Your task to perform on an android device: turn off sleep mode Image 0: 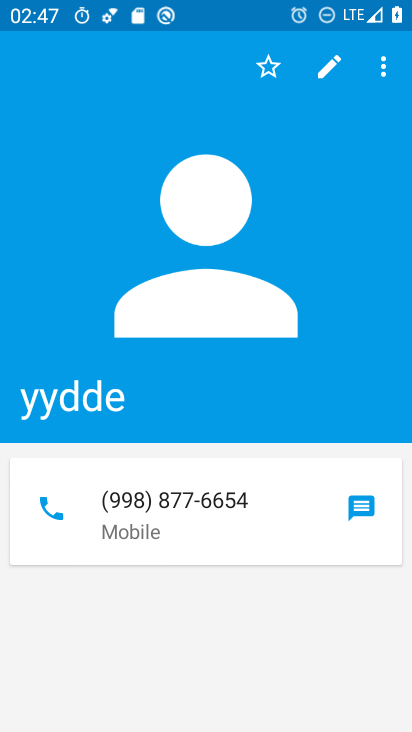
Step 0: press home button
Your task to perform on an android device: turn off sleep mode Image 1: 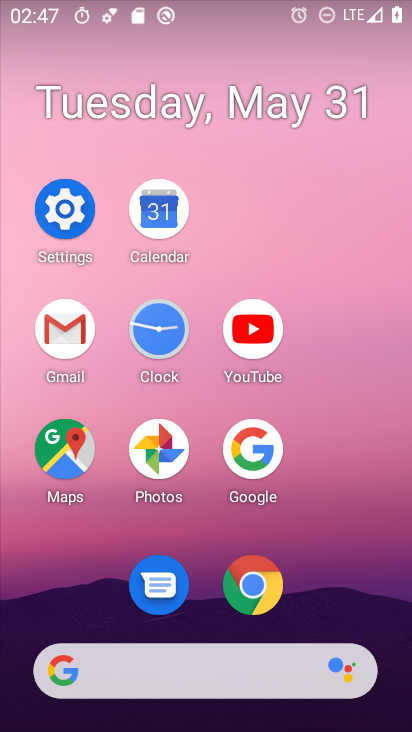
Step 1: click (70, 229)
Your task to perform on an android device: turn off sleep mode Image 2: 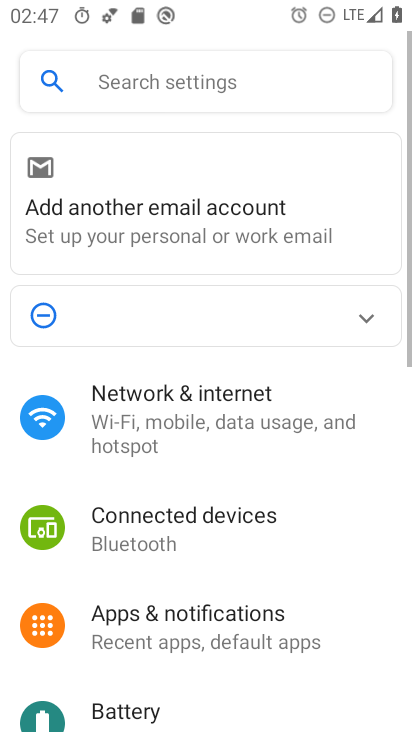
Step 2: drag from (254, 563) to (230, 198)
Your task to perform on an android device: turn off sleep mode Image 3: 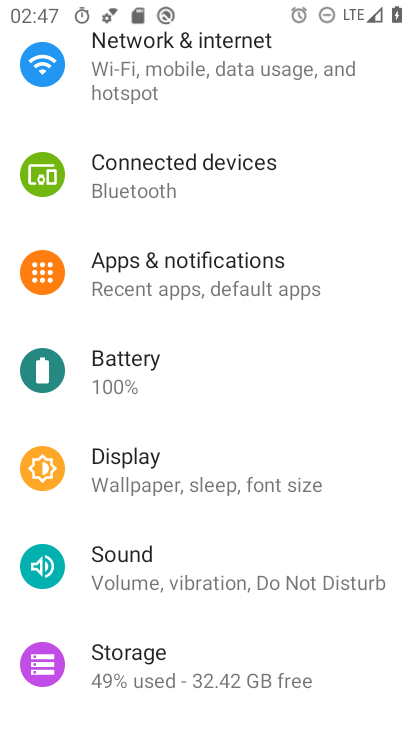
Step 3: click (186, 462)
Your task to perform on an android device: turn off sleep mode Image 4: 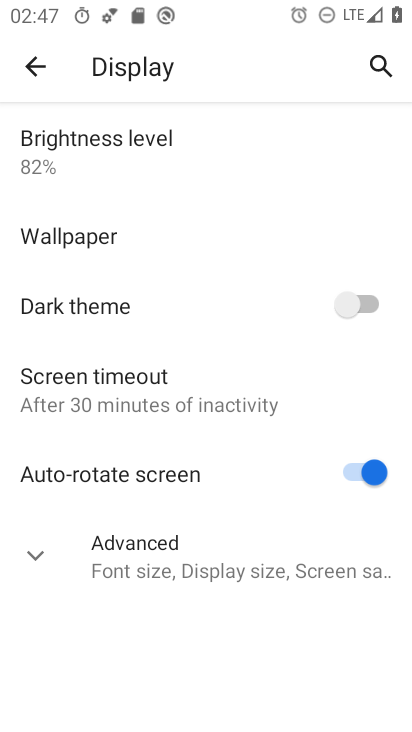
Step 4: click (131, 395)
Your task to perform on an android device: turn off sleep mode Image 5: 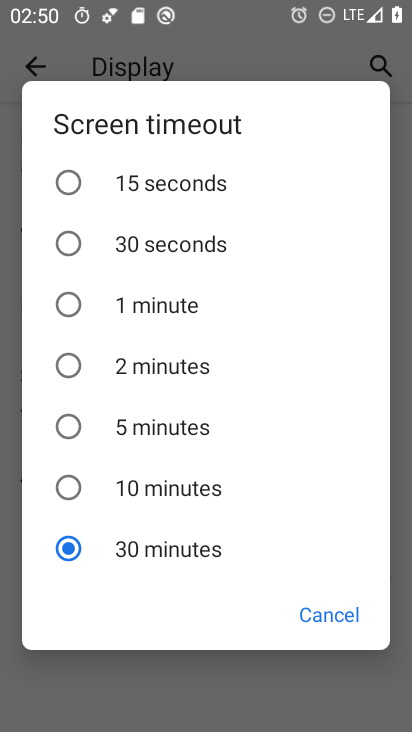
Step 5: task complete